Your task to perform on an android device: Open sound settings Image 0: 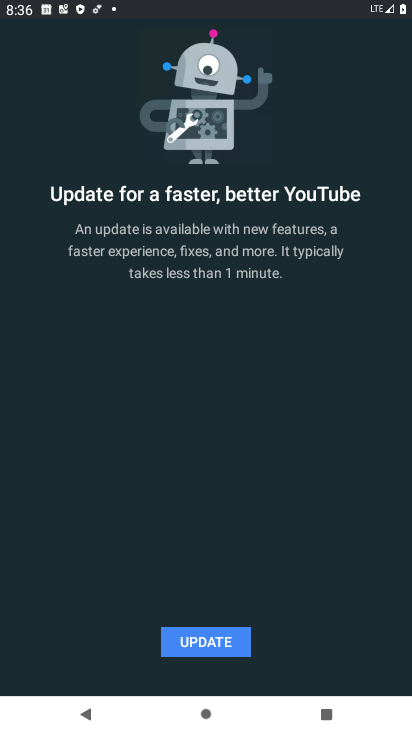
Step 0: press home button
Your task to perform on an android device: Open sound settings Image 1: 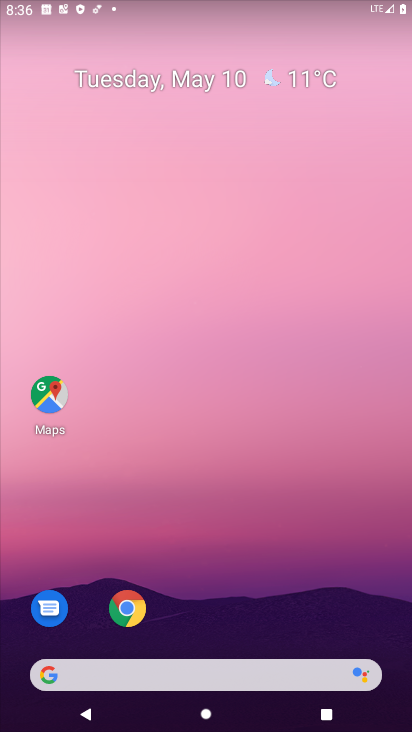
Step 1: drag from (219, 676) to (269, 166)
Your task to perform on an android device: Open sound settings Image 2: 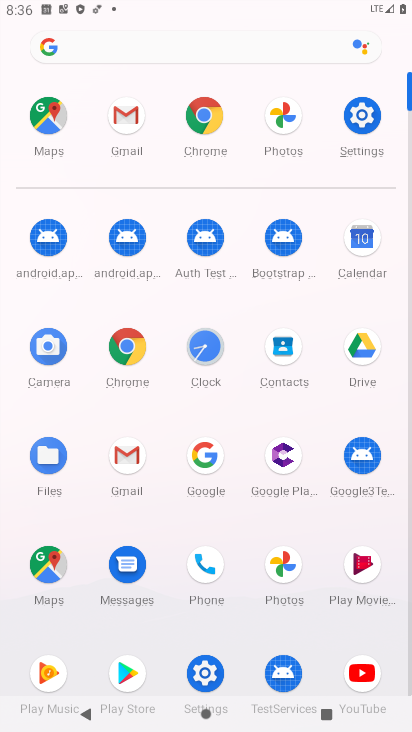
Step 2: click (362, 120)
Your task to perform on an android device: Open sound settings Image 3: 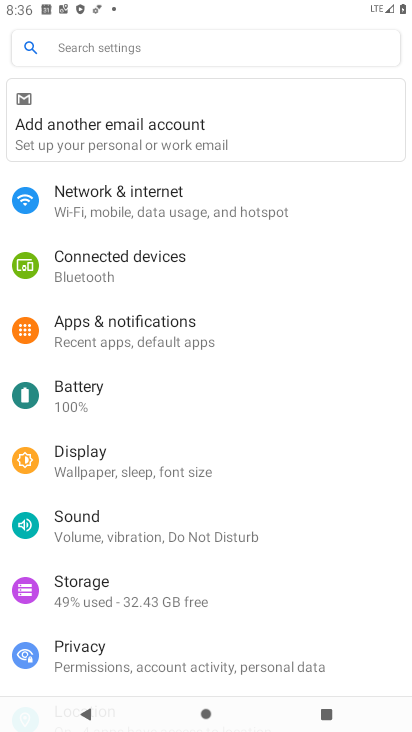
Step 3: click (113, 529)
Your task to perform on an android device: Open sound settings Image 4: 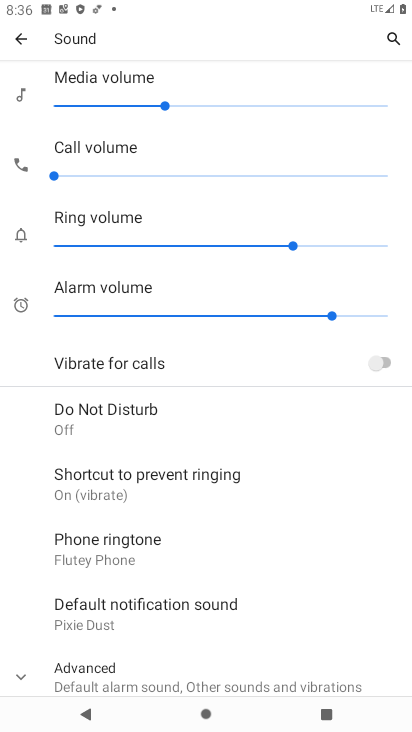
Step 4: task complete